Your task to perform on an android device: Search for "beats solo 3" on newegg, select the first entry, add it to the cart, then select checkout. Image 0: 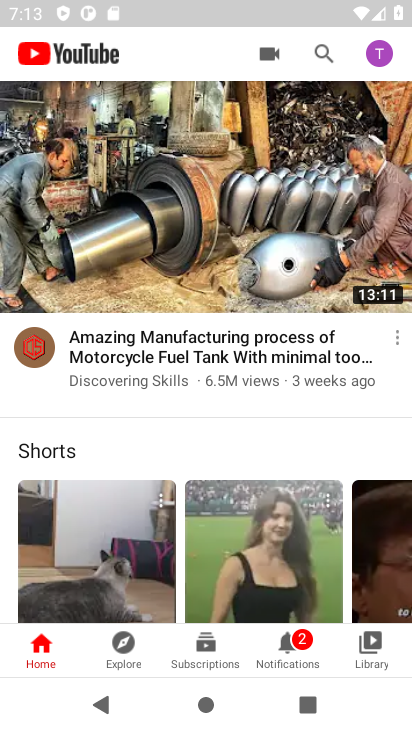
Step 0: press home button
Your task to perform on an android device: Search for "beats solo 3" on newegg, select the first entry, add it to the cart, then select checkout. Image 1: 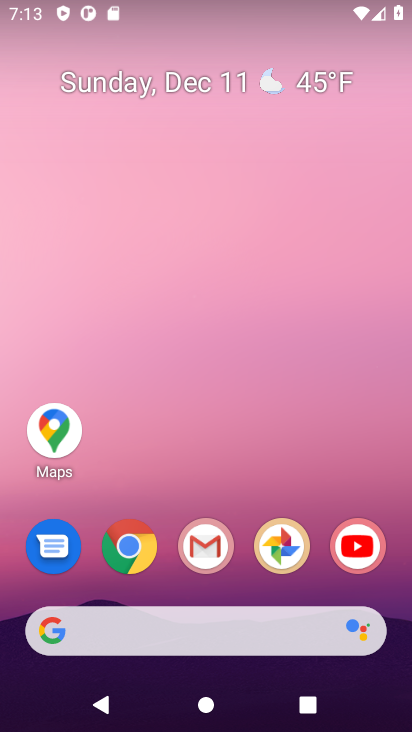
Step 1: click (129, 548)
Your task to perform on an android device: Search for "beats solo 3" on newegg, select the first entry, add it to the cart, then select checkout. Image 2: 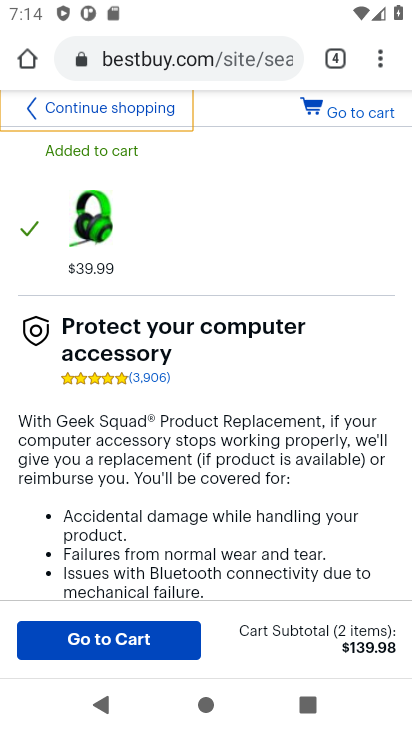
Step 2: click (184, 46)
Your task to perform on an android device: Search for "beats solo 3" on newegg, select the first entry, add it to the cart, then select checkout. Image 3: 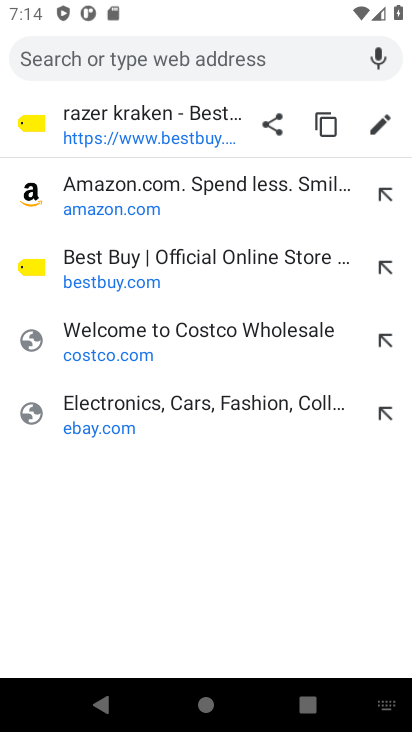
Step 3: type "newegg.com"
Your task to perform on an android device: Search for "beats solo 3" on newegg, select the first entry, add it to the cart, then select checkout. Image 4: 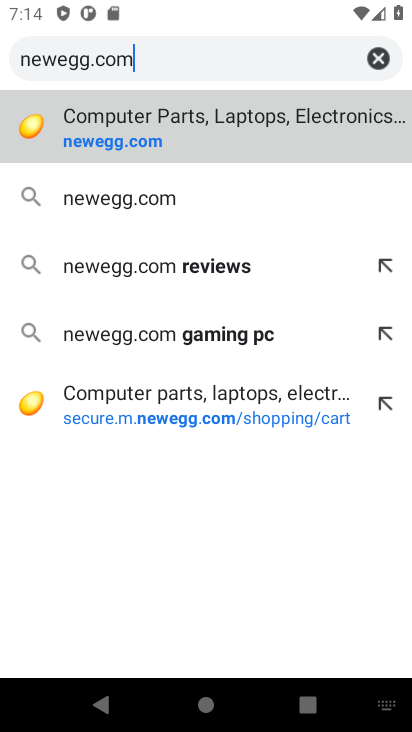
Step 4: click (117, 135)
Your task to perform on an android device: Search for "beats solo 3" on newegg, select the first entry, add it to the cart, then select checkout. Image 5: 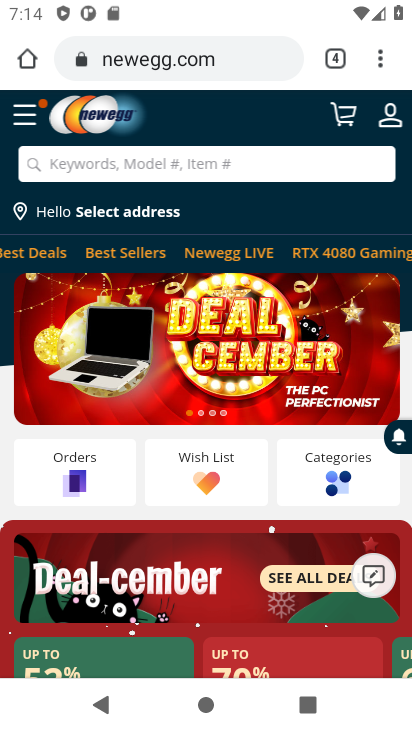
Step 5: click (129, 160)
Your task to perform on an android device: Search for "beats solo 3" on newegg, select the first entry, add it to the cart, then select checkout. Image 6: 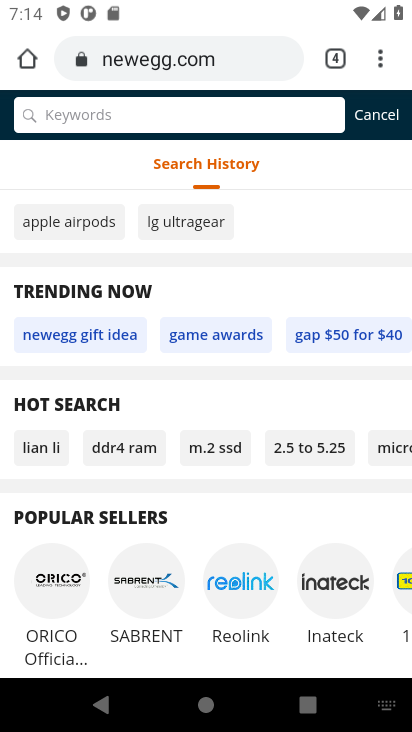
Step 6: type "beats solo 3"
Your task to perform on an android device: Search for "beats solo 3" on newegg, select the first entry, add it to the cart, then select checkout. Image 7: 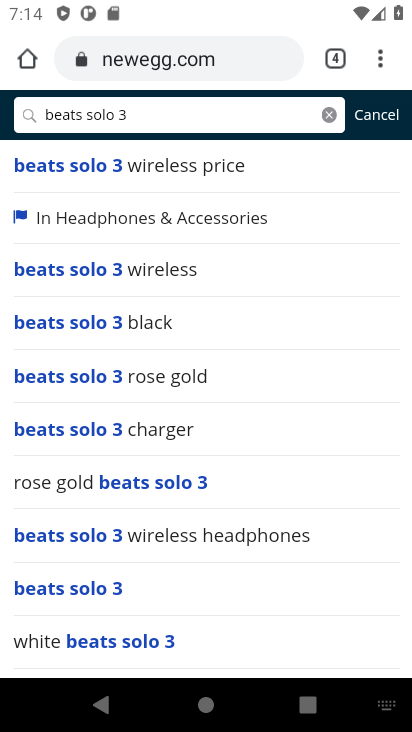
Step 7: click (95, 592)
Your task to perform on an android device: Search for "beats solo 3" on newegg, select the first entry, add it to the cart, then select checkout. Image 8: 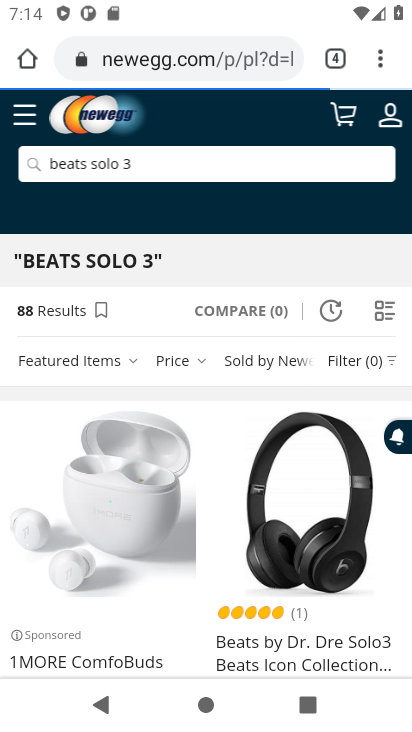
Step 8: task complete